Your task to perform on an android device: Go to Amazon Image 0: 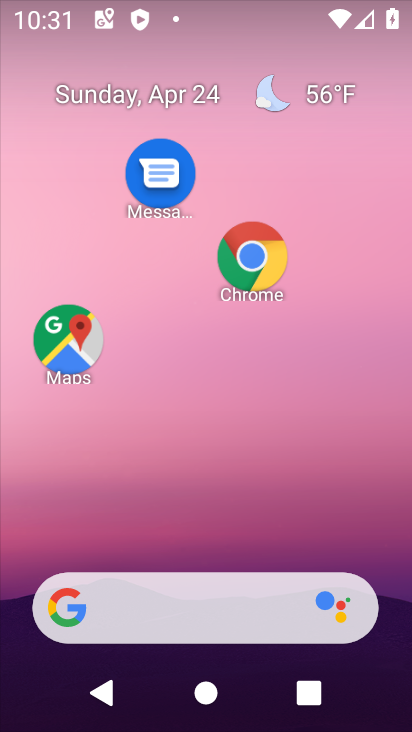
Step 0: click (249, 254)
Your task to perform on an android device: Go to Amazon Image 1: 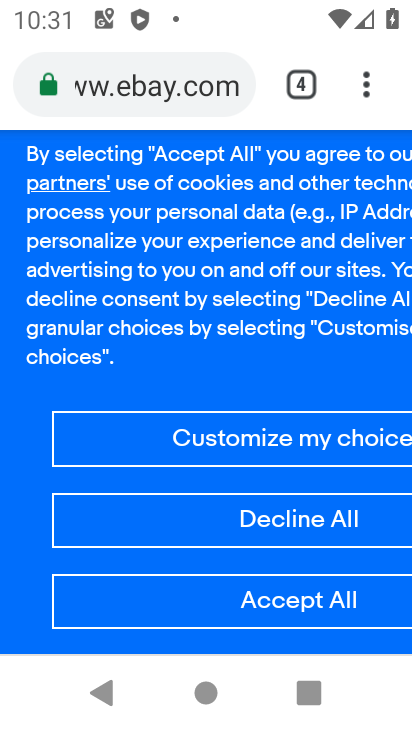
Step 1: click (365, 96)
Your task to perform on an android device: Go to Amazon Image 2: 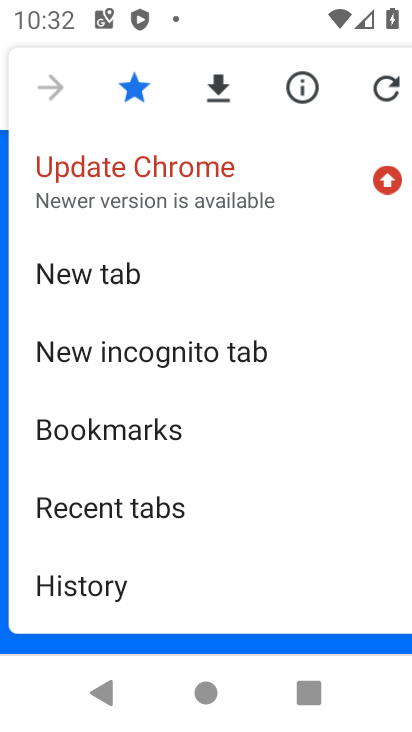
Step 2: click (117, 271)
Your task to perform on an android device: Go to Amazon Image 3: 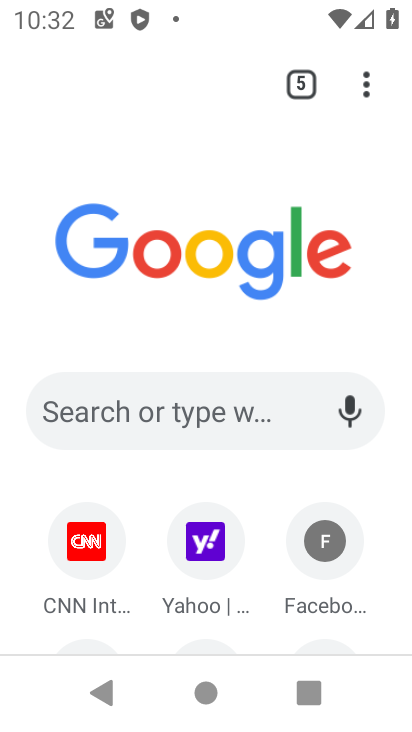
Step 3: click (170, 409)
Your task to perform on an android device: Go to Amazon Image 4: 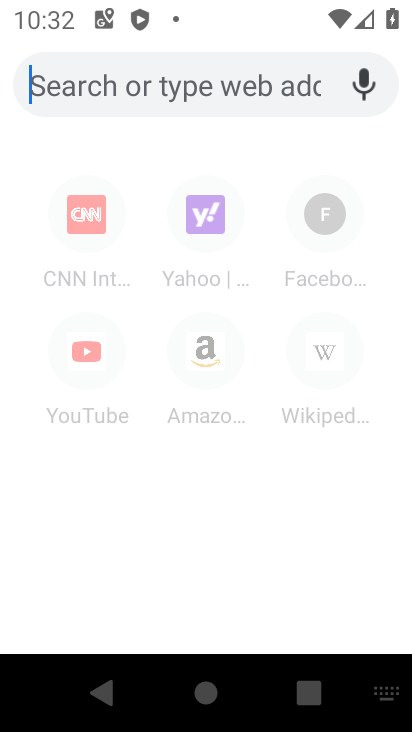
Step 4: type "Amazone"
Your task to perform on an android device: Go to Amazon Image 5: 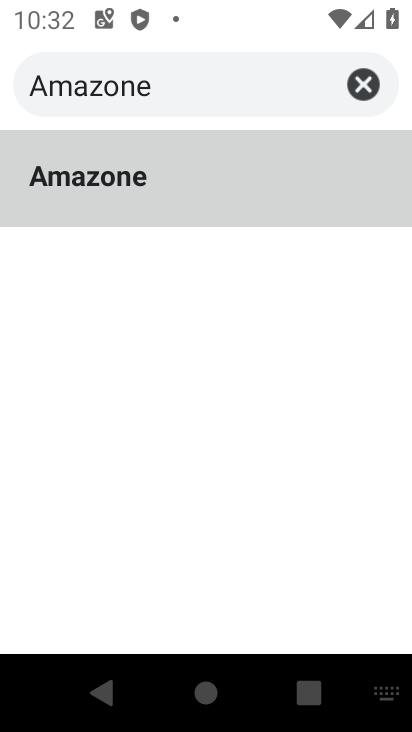
Step 5: click (118, 173)
Your task to perform on an android device: Go to Amazon Image 6: 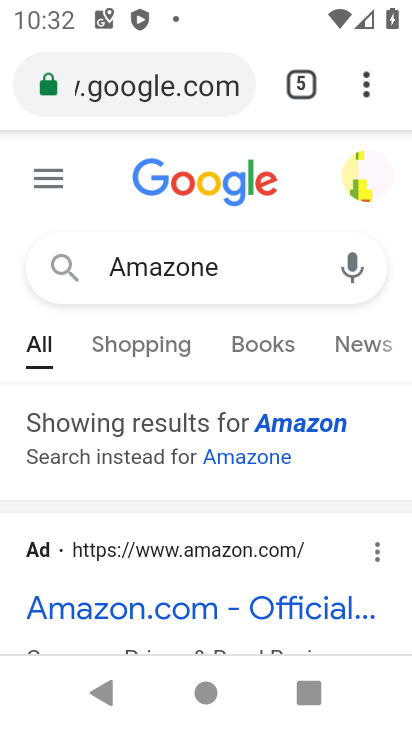
Step 6: click (188, 606)
Your task to perform on an android device: Go to Amazon Image 7: 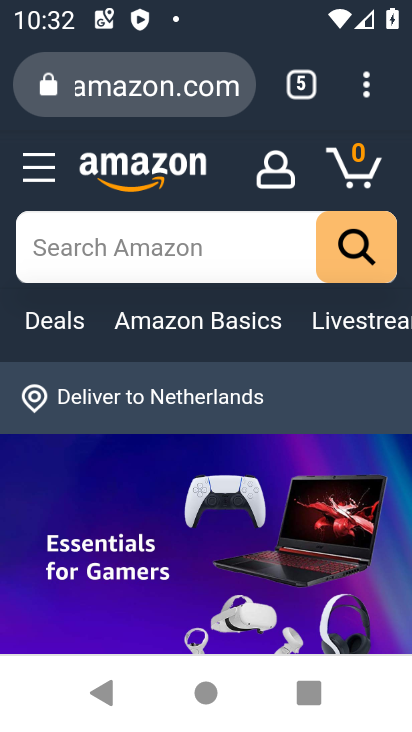
Step 7: task complete